Your task to perform on an android device: toggle notification dots Image 0: 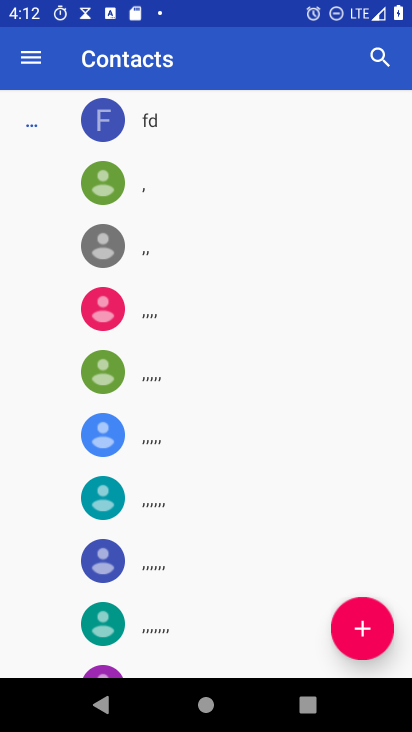
Step 0: press home button
Your task to perform on an android device: toggle notification dots Image 1: 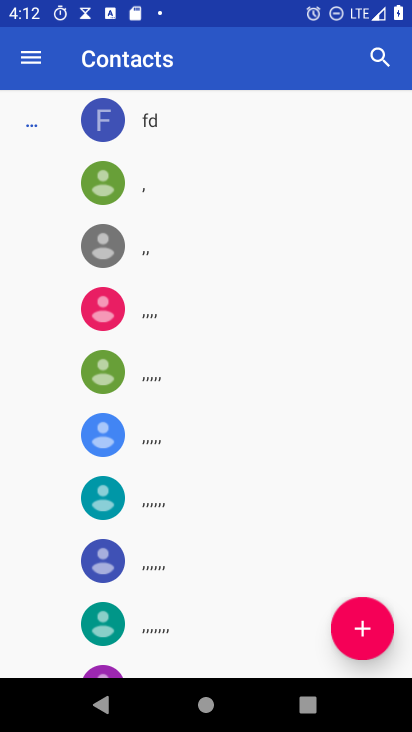
Step 1: press home button
Your task to perform on an android device: toggle notification dots Image 2: 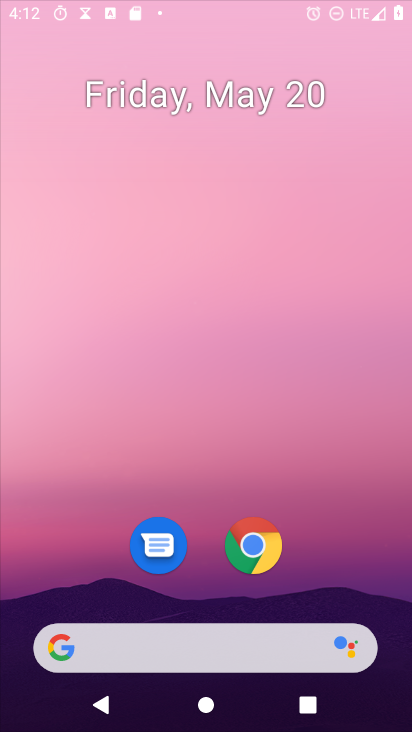
Step 2: press home button
Your task to perform on an android device: toggle notification dots Image 3: 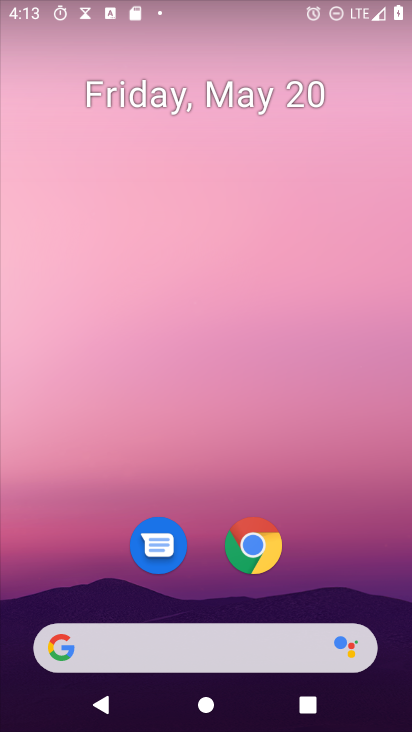
Step 3: drag from (312, 528) to (378, 0)
Your task to perform on an android device: toggle notification dots Image 4: 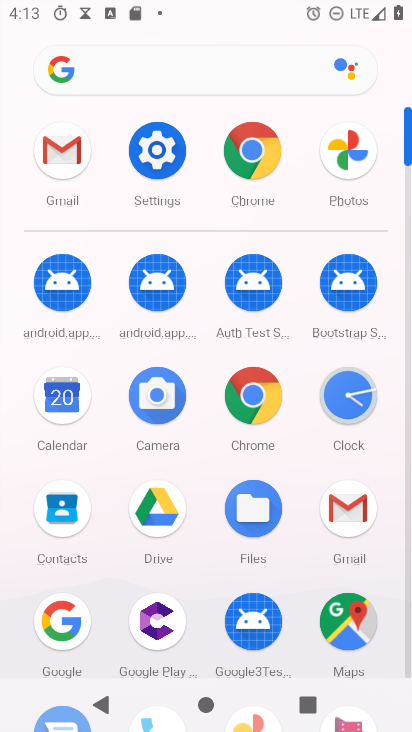
Step 4: click (172, 153)
Your task to perform on an android device: toggle notification dots Image 5: 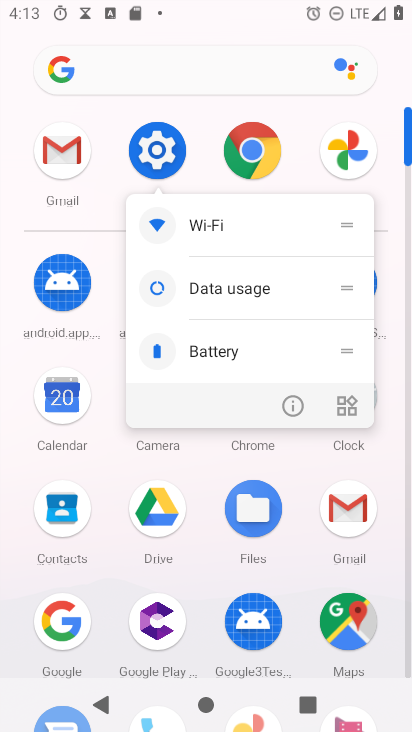
Step 5: click (161, 159)
Your task to perform on an android device: toggle notification dots Image 6: 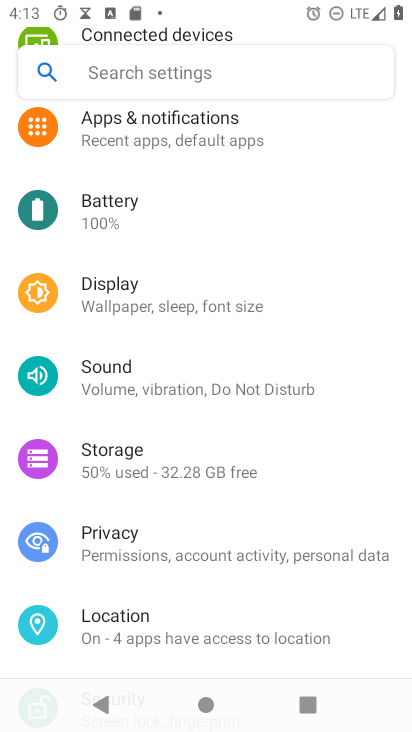
Step 6: click (174, 132)
Your task to perform on an android device: toggle notification dots Image 7: 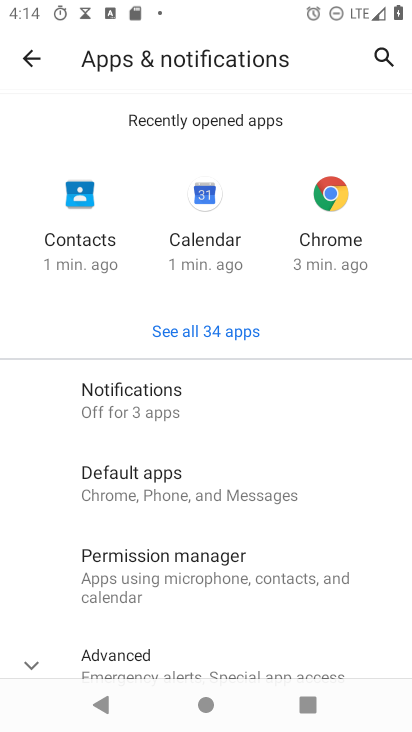
Step 7: click (180, 387)
Your task to perform on an android device: toggle notification dots Image 8: 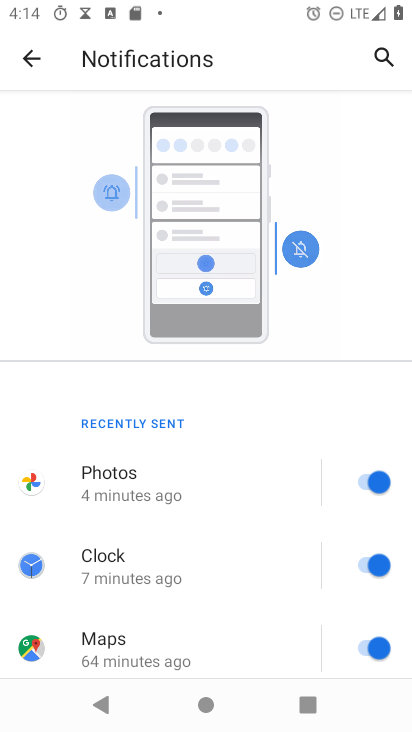
Step 8: drag from (248, 642) to (263, 86)
Your task to perform on an android device: toggle notification dots Image 9: 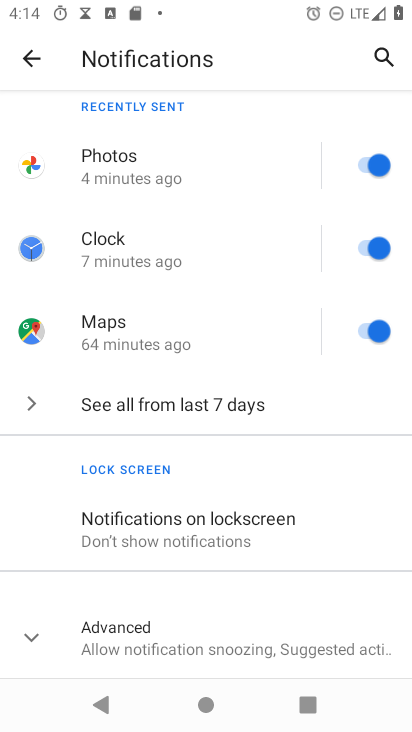
Step 9: click (196, 543)
Your task to perform on an android device: toggle notification dots Image 10: 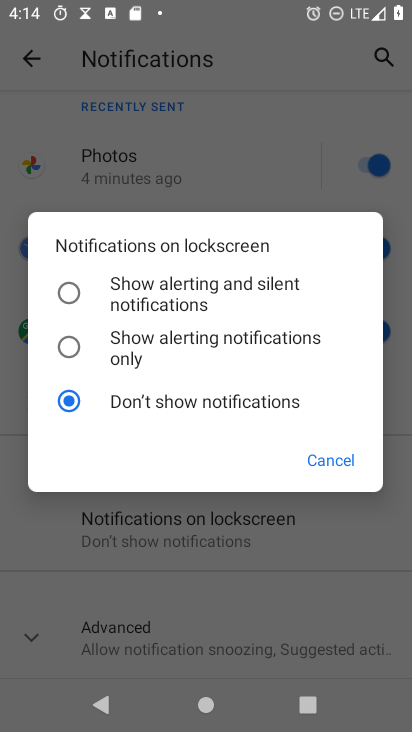
Step 10: click (335, 460)
Your task to perform on an android device: toggle notification dots Image 11: 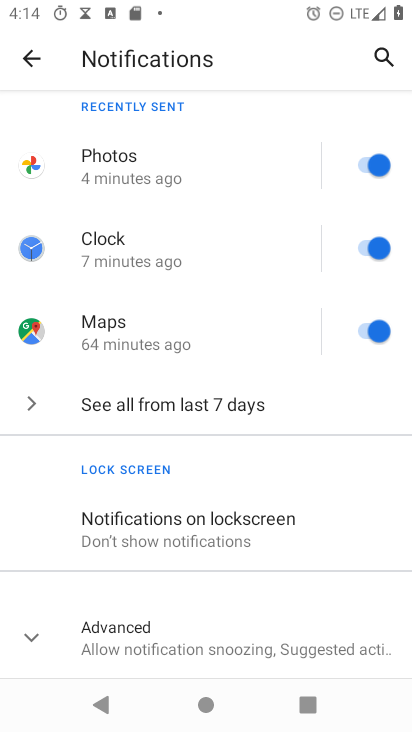
Step 11: click (182, 644)
Your task to perform on an android device: toggle notification dots Image 12: 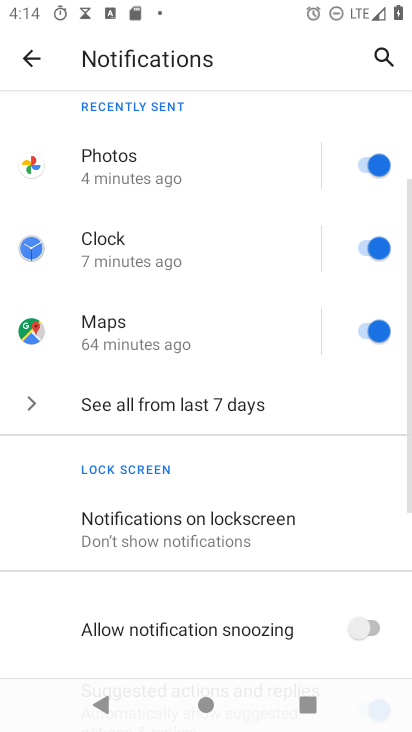
Step 12: drag from (221, 626) to (270, 6)
Your task to perform on an android device: toggle notification dots Image 13: 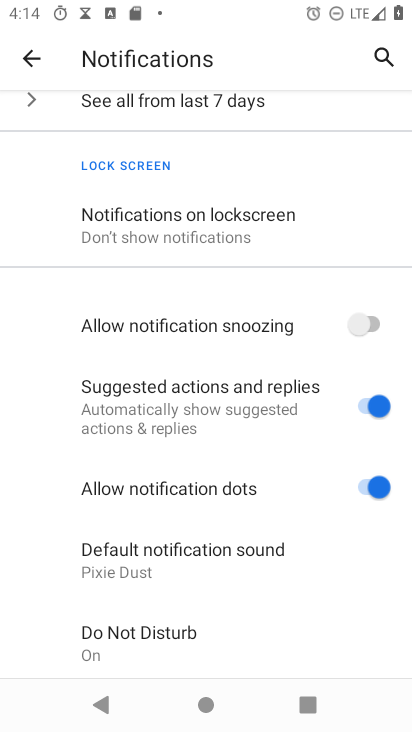
Step 13: click (364, 482)
Your task to perform on an android device: toggle notification dots Image 14: 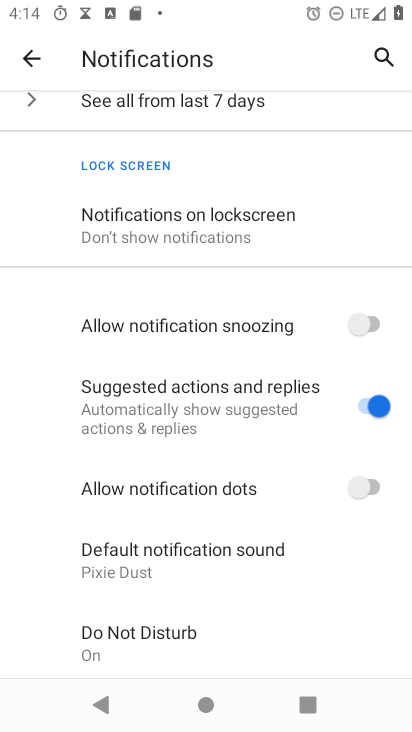
Step 14: task complete